Your task to perform on an android device: Open Chrome and go to the settings page Image 0: 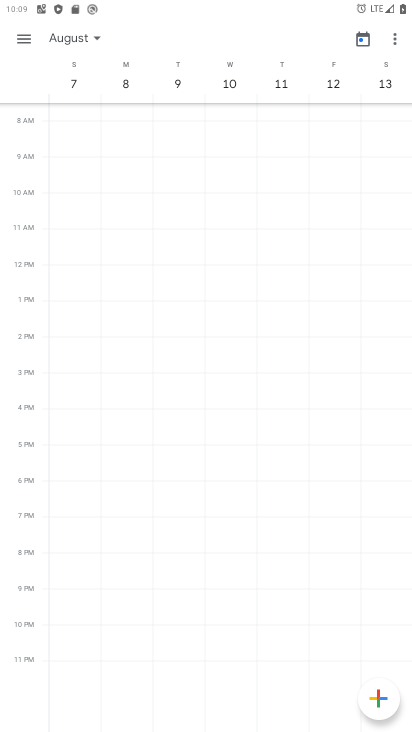
Step 0: press home button
Your task to perform on an android device: Open Chrome and go to the settings page Image 1: 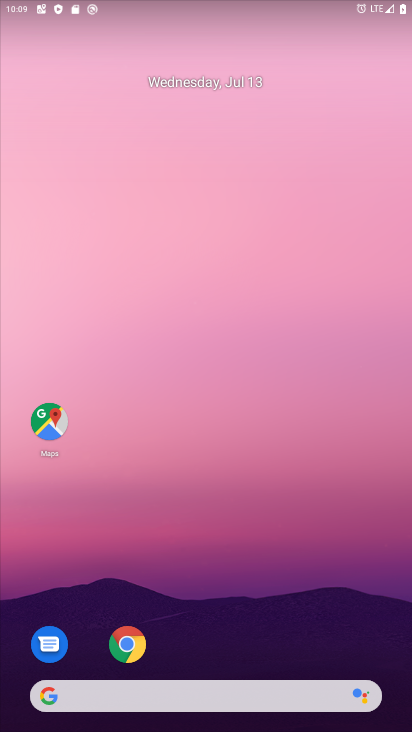
Step 1: click (132, 650)
Your task to perform on an android device: Open Chrome and go to the settings page Image 2: 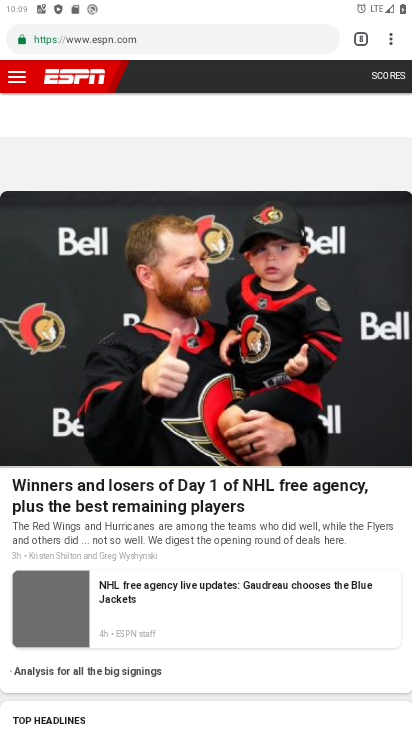
Step 2: click (390, 35)
Your task to perform on an android device: Open Chrome and go to the settings page Image 3: 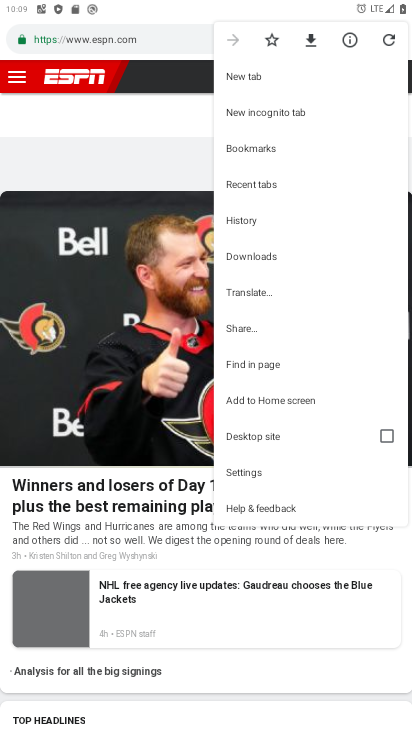
Step 3: click (248, 471)
Your task to perform on an android device: Open Chrome and go to the settings page Image 4: 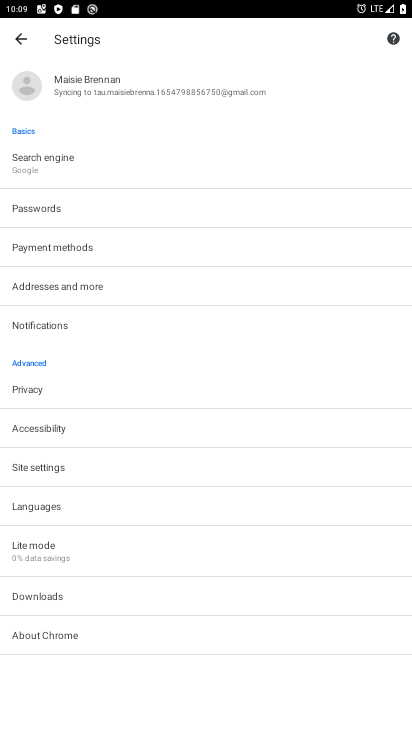
Step 4: task complete